Your task to perform on an android device: turn notification dots on Image 0: 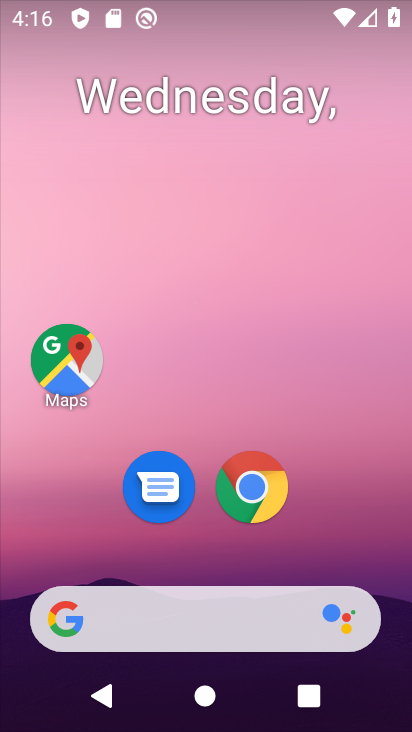
Step 0: drag from (315, 476) to (300, 78)
Your task to perform on an android device: turn notification dots on Image 1: 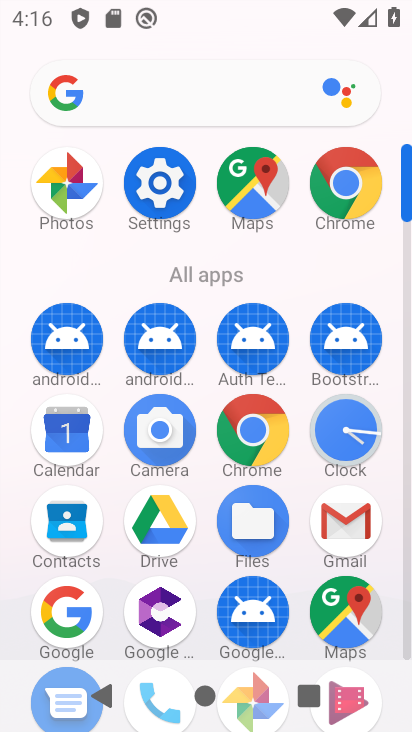
Step 1: click (164, 184)
Your task to perform on an android device: turn notification dots on Image 2: 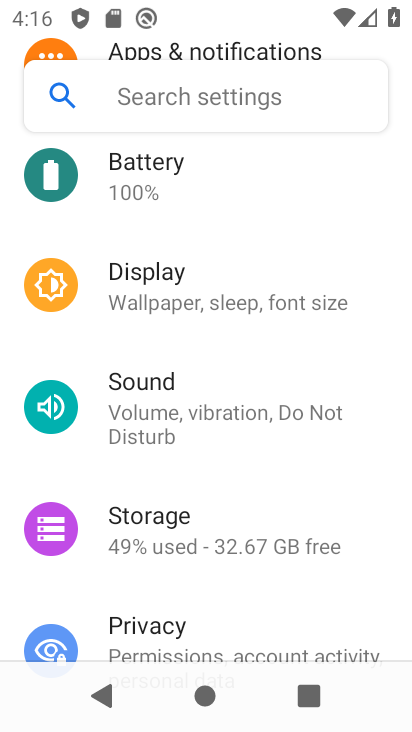
Step 2: drag from (235, 232) to (240, 580)
Your task to perform on an android device: turn notification dots on Image 3: 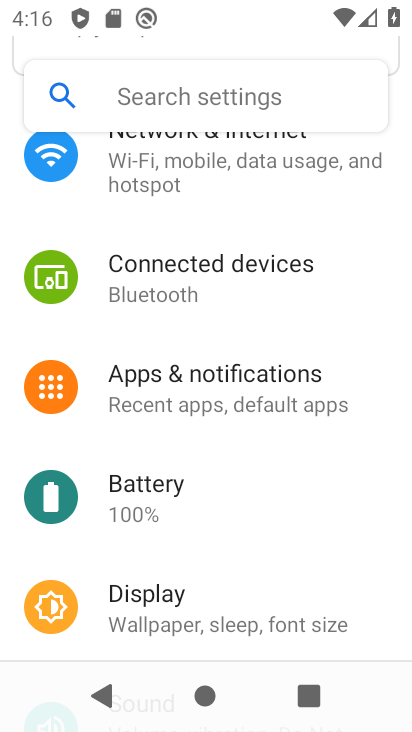
Step 3: click (252, 398)
Your task to perform on an android device: turn notification dots on Image 4: 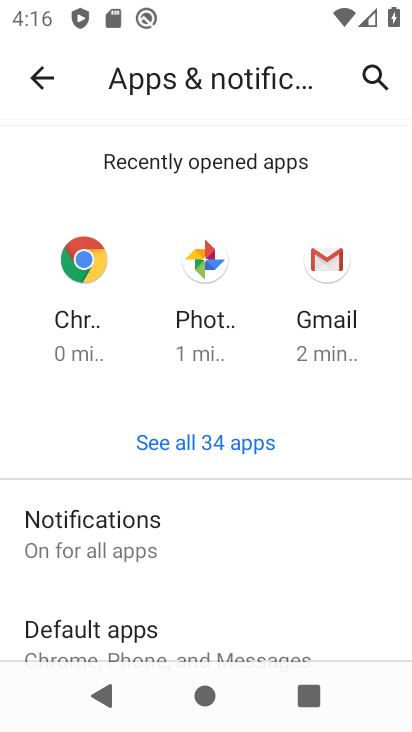
Step 4: drag from (218, 592) to (227, 282)
Your task to perform on an android device: turn notification dots on Image 5: 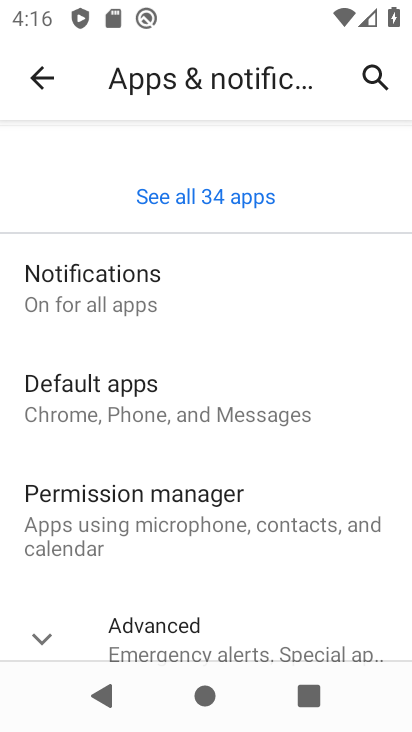
Step 5: click (83, 284)
Your task to perform on an android device: turn notification dots on Image 6: 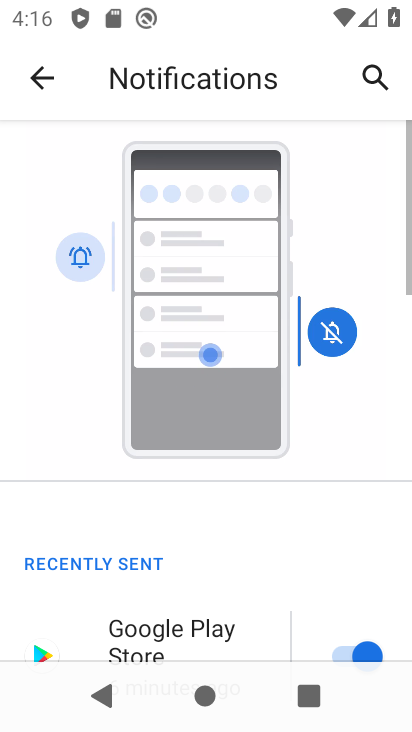
Step 6: drag from (244, 574) to (252, 121)
Your task to perform on an android device: turn notification dots on Image 7: 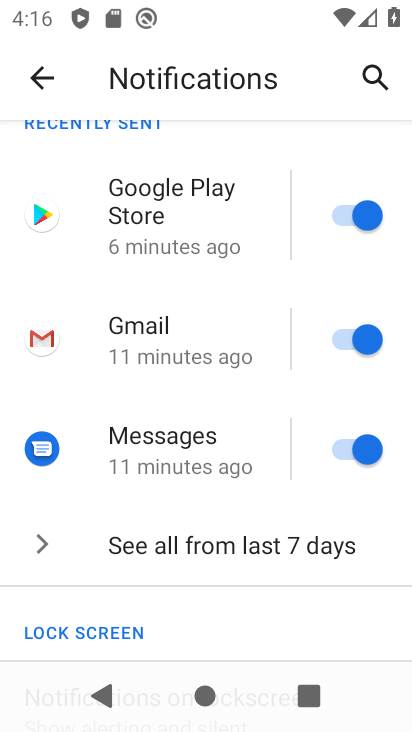
Step 7: drag from (162, 550) to (240, 143)
Your task to perform on an android device: turn notification dots on Image 8: 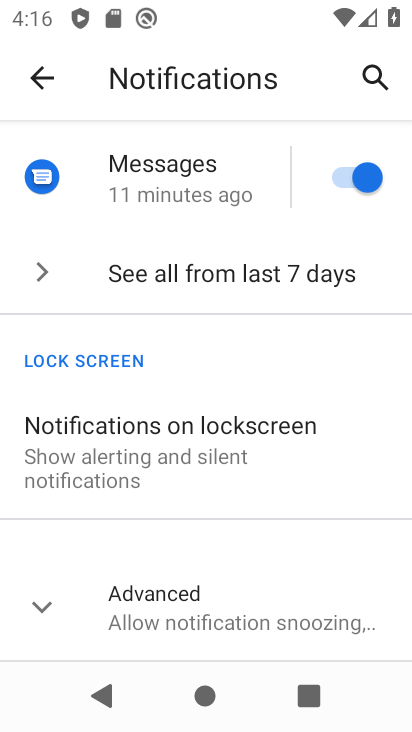
Step 8: click (170, 605)
Your task to perform on an android device: turn notification dots on Image 9: 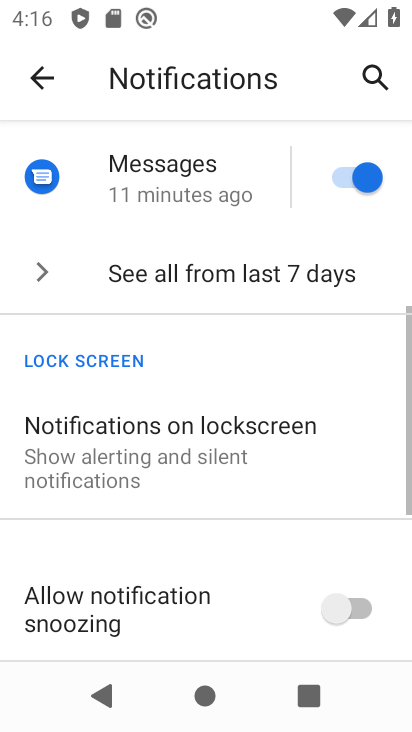
Step 9: task complete